Your task to perform on an android device: turn on data saver in the chrome app Image 0: 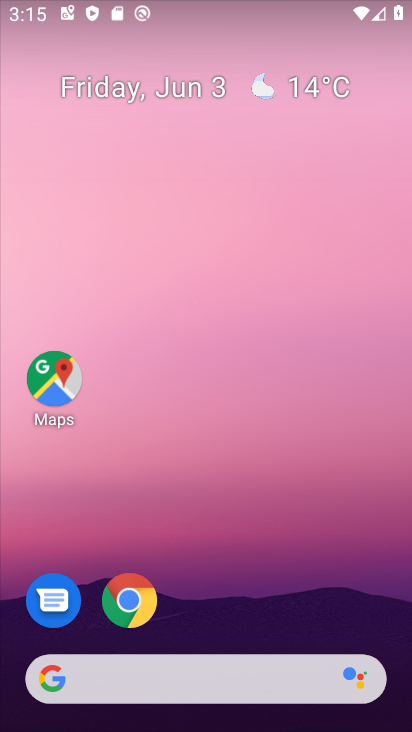
Step 0: click (144, 595)
Your task to perform on an android device: turn on data saver in the chrome app Image 1: 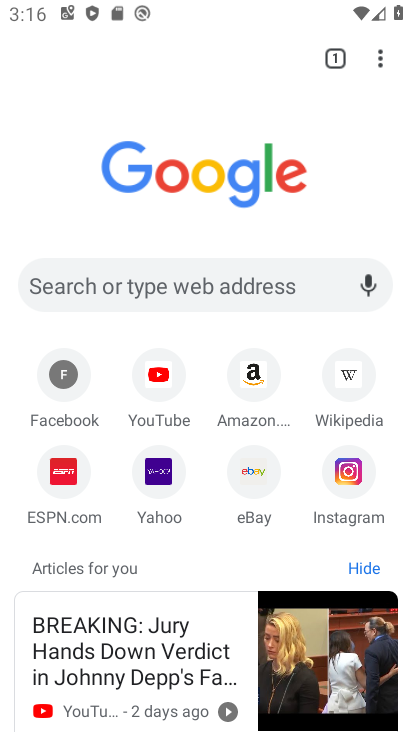
Step 1: click (385, 48)
Your task to perform on an android device: turn on data saver in the chrome app Image 2: 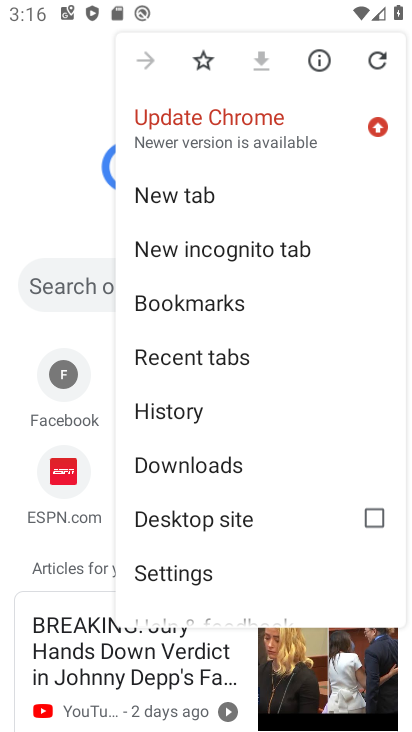
Step 2: click (193, 579)
Your task to perform on an android device: turn on data saver in the chrome app Image 3: 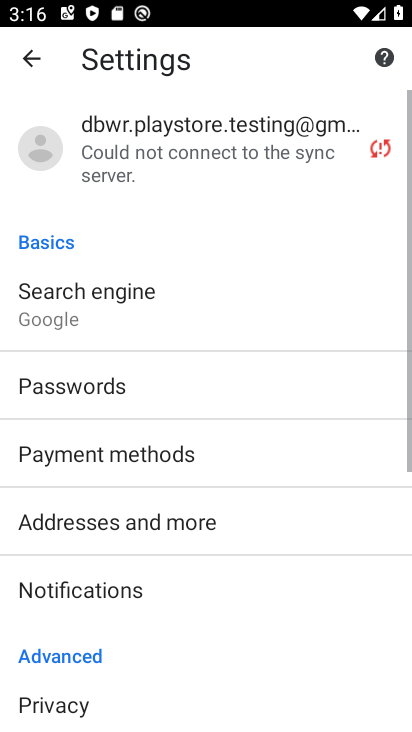
Step 3: drag from (207, 621) to (177, 226)
Your task to perform on an android device: turn on data saver in the chrome app Image 4: 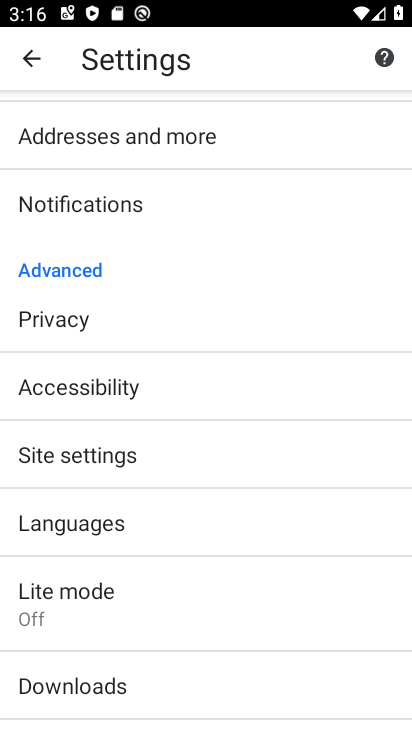
Step 4: click (140, 586)
Your task to perform on an android device: turn on data saver in the chrome app Image 5: 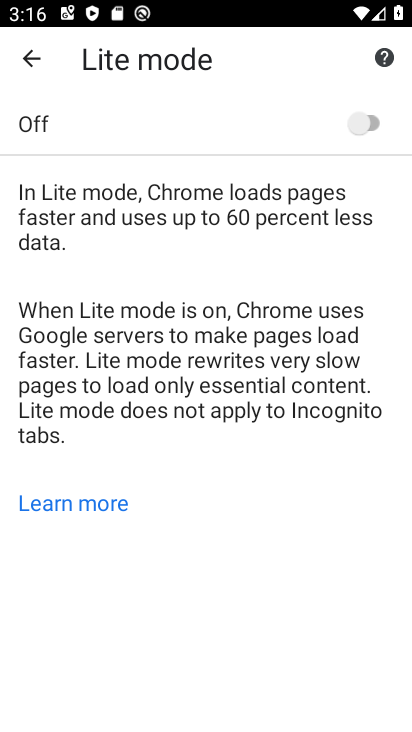
Step 5: click (354, 123)
Your task to perform on an android device: turn on data saver in the chrome app Image 6: 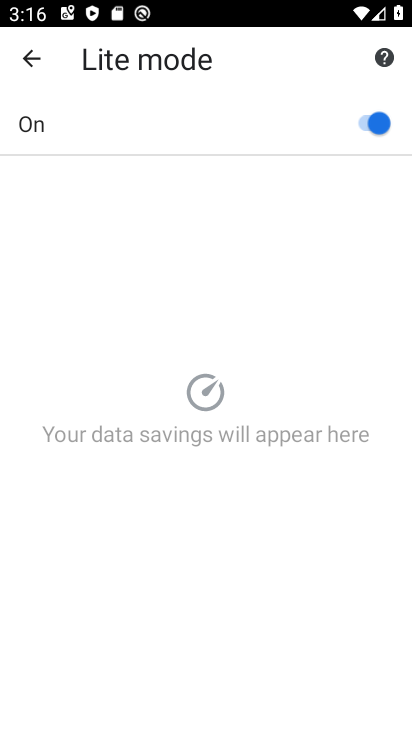
Step 6: task complete